Your task to perform on an android device: Open sound settings Image 0: 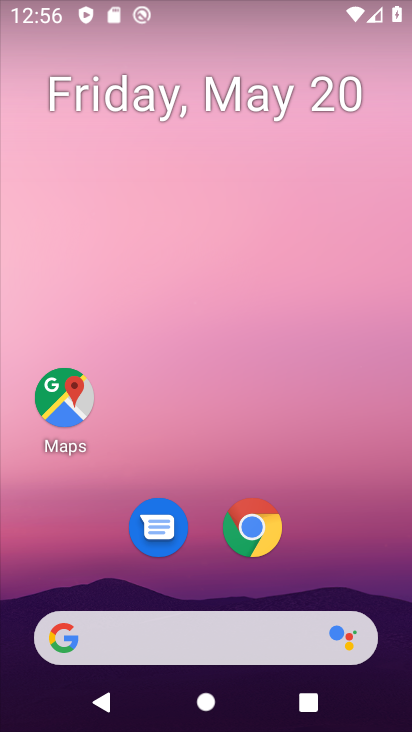
Step 0: press home button
Your task to perform on an android device: Open sound settings Image 1: 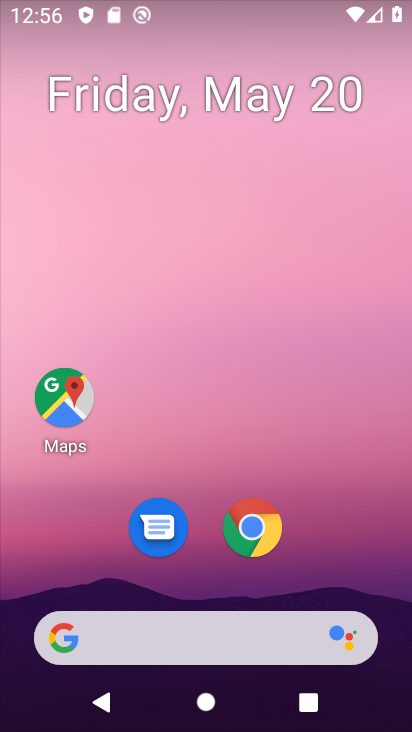
Step 1: drag from (198, 643) to (331, 83)
Your task to perform on an android device: Open sound settings Image 2: 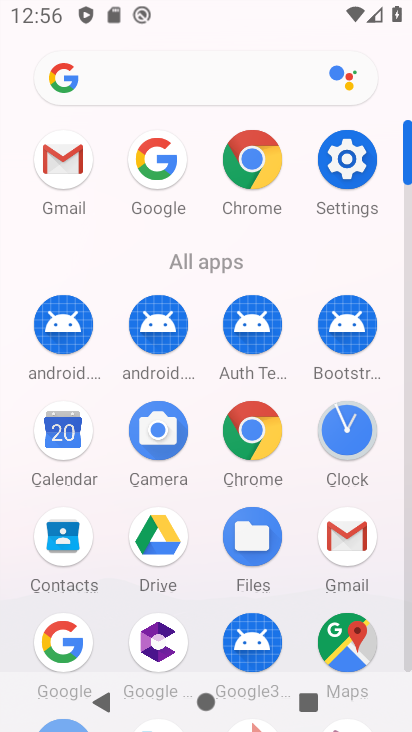
Step 2: click (338, 163)
Your task to perform on an android device: Open sound settings Image 3: 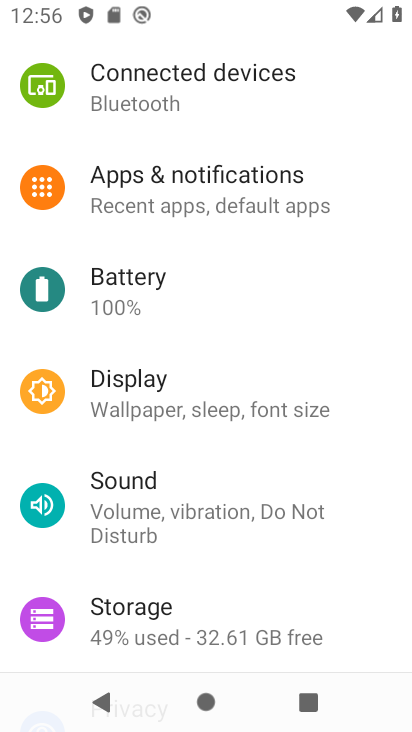
Step 3: click (148, 502)
Your task to perform on an android device: Open sound settings Image 4: 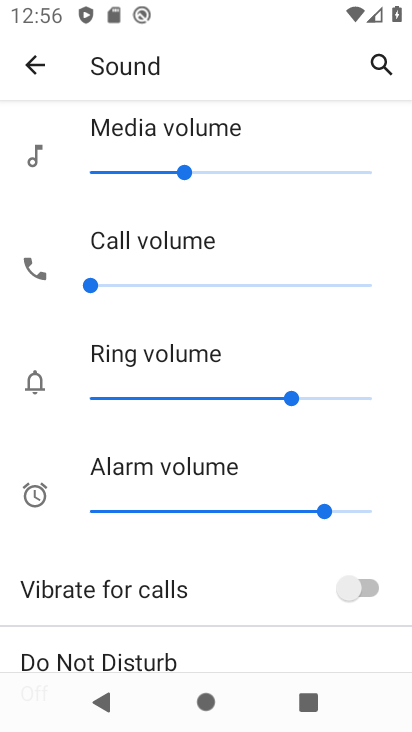
Step 4: task complete